Your task to perform on an android device: Open Google Image 0: 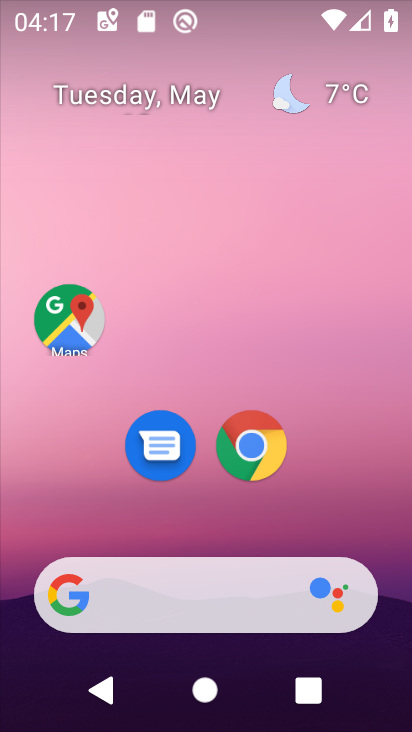
Step 0: click (207, 582)
Your task to perform on an android device: Open Google Image 1: 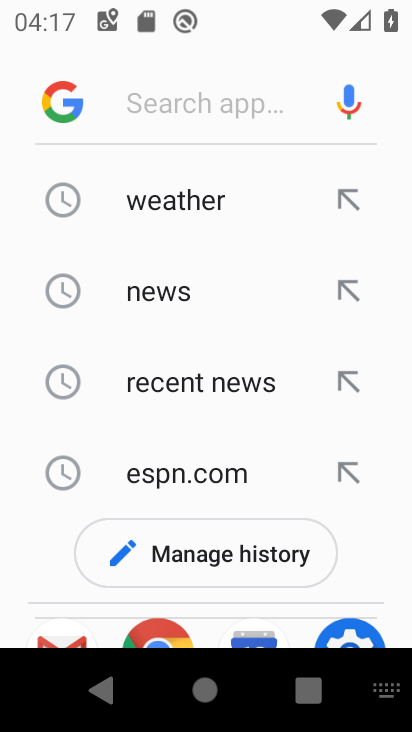
Step 1: click (58, 94)
Your task to perform on an android device: Open Google Image 2: 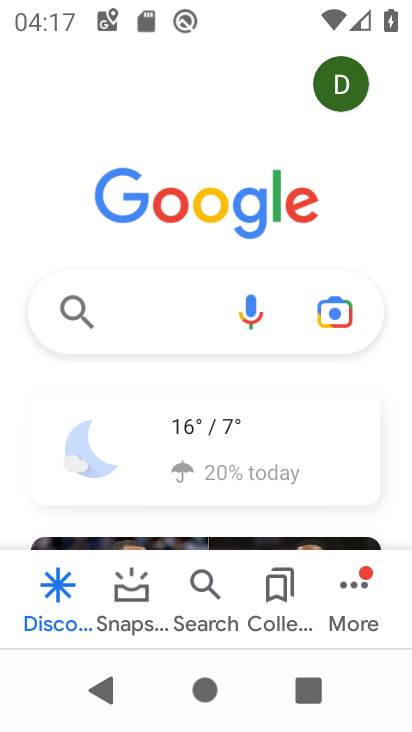
Step 2: task complete